Your task to perform on an android device: Open the phone app and click the voicemail tab. Image 0: 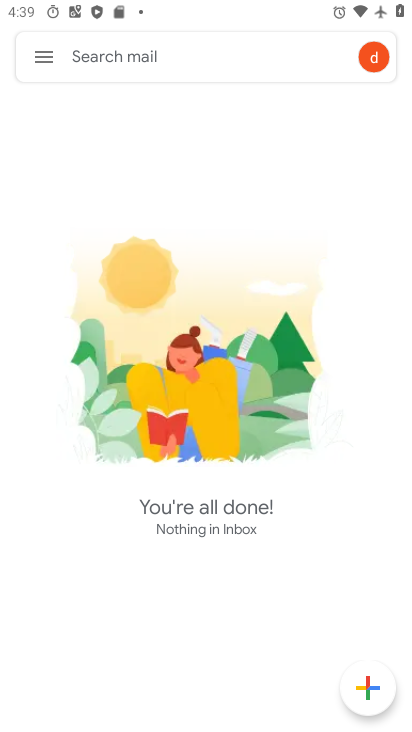
Step 0: press back button
Your task to perform on an android device: Open the phone app and click the voicemail tab. Image 1: 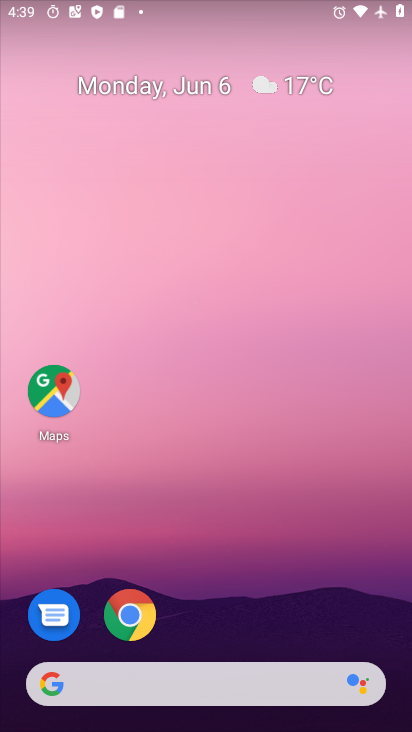
Step 1: drag from (228, 553) to (223, 14)
Your task to perform on an android device: Open the phone app and click the voicemail tab. Image 2: 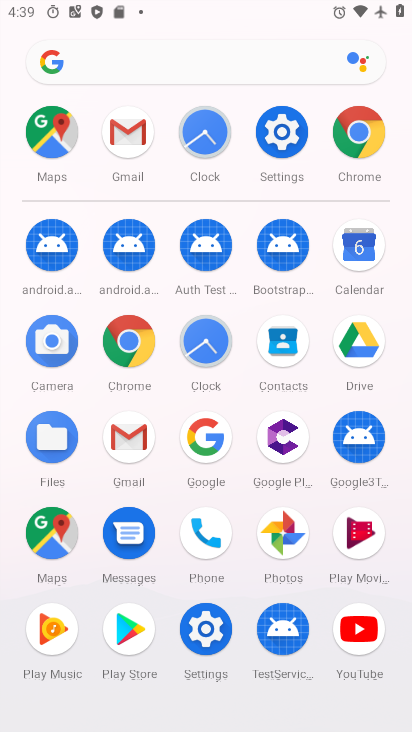
Step 2: drag from (15, 618) to (15, 301)
Your task to perform on an android device: Open the phone app and click the voicemail tab. Image 3: 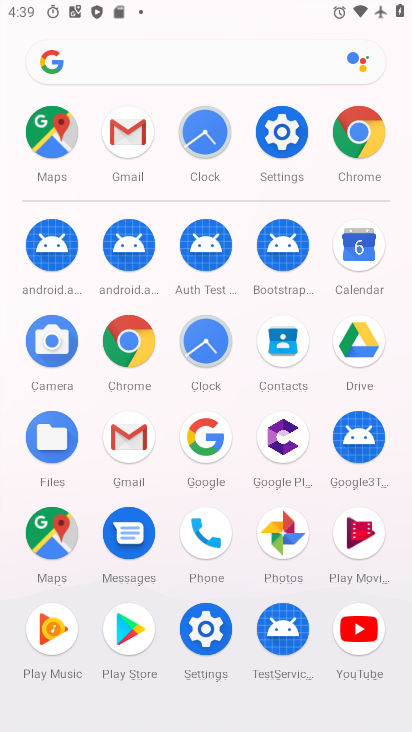
Step 3: click (209, 532)
Your task to perform on an android device: Open the phone app and click the voicemail tab. Image 4: 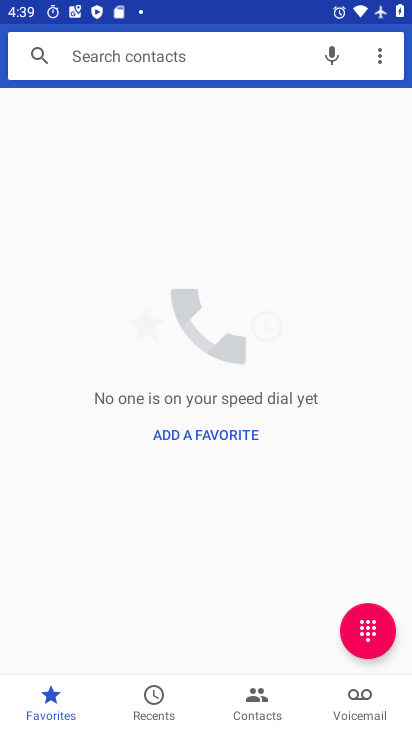
Step 4: click (364, 709)
Your task to perform on an android device: Open the phone app and click the voicemail tab. Image 5: 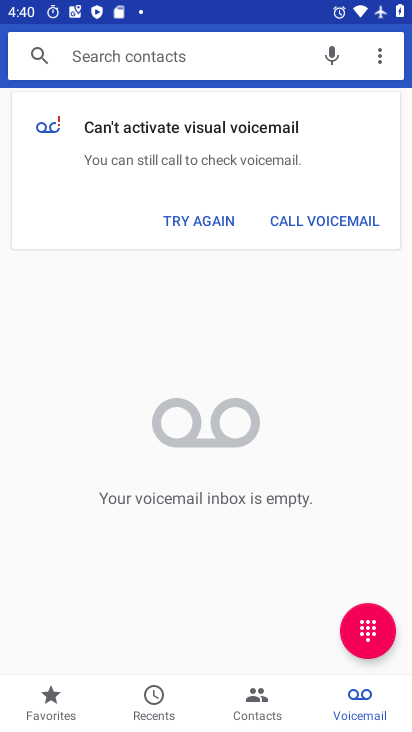
Step 5: task complete